Your task to perform on an android device: find photos in the google photos app Image 0: 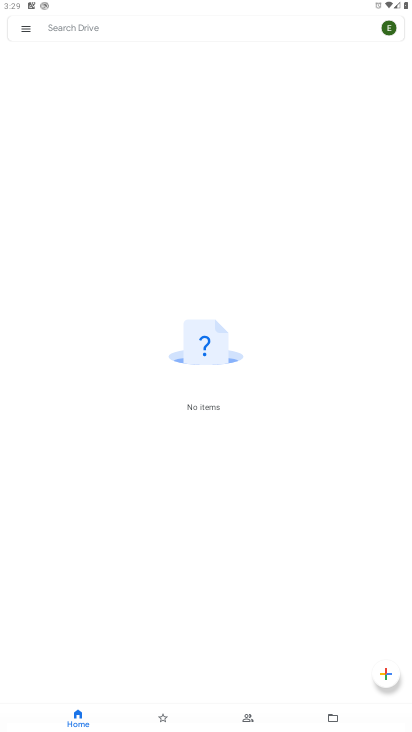
Step 0: press home button
Your task to perform on an android device: find photos in the google photos app Image 1: 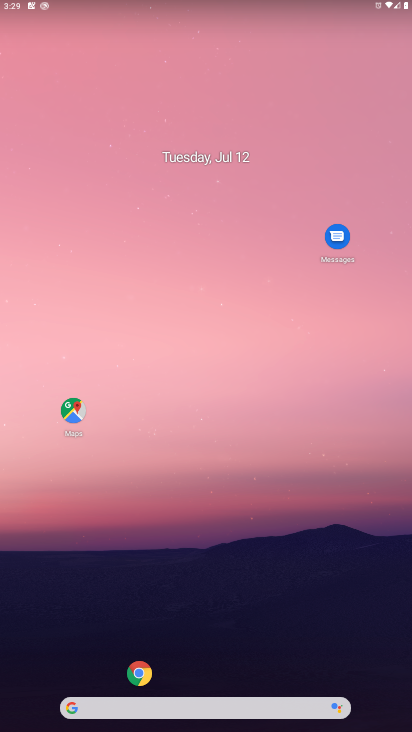
Step 1: drag from (24, 701) to (342, 20)
Your task to perform on an android device: find photos in the google photos app Image 2: 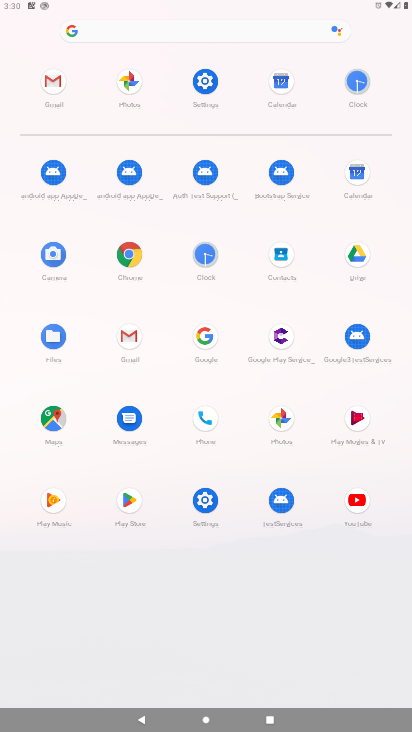
Step 2: click (269, 427)
Your task to perform on an android device: find photos in the google photos app Image 3: 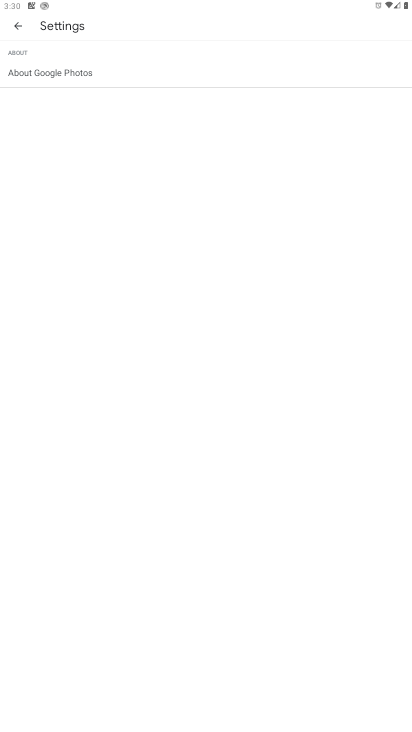
Step 3: click (15, 28)
Your task to perform on an android device: find photos in the google photos app Image 4: 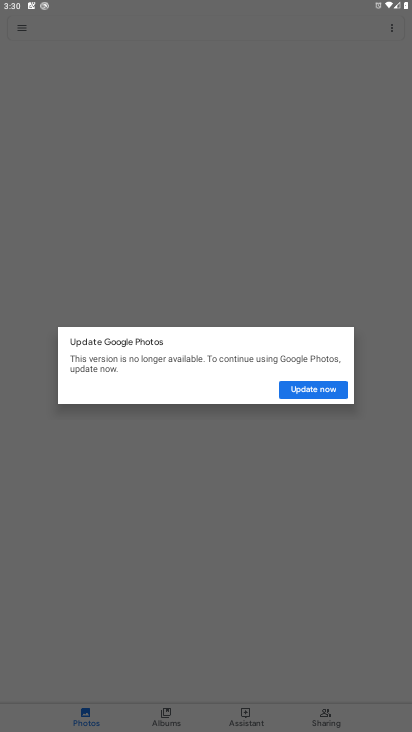
Step 4: click (321, 384)
Your task to perform on an android device: find photos in the google photos app Image 5: 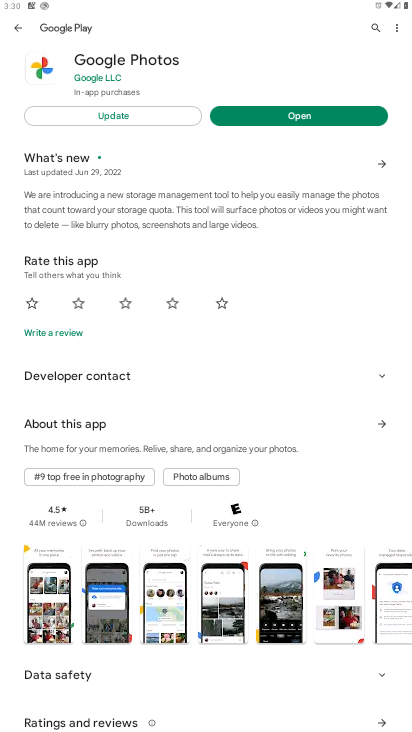
Step 5: click (307, 119)
Your task to perform on an android device: find photos in the google photos app Image 6: 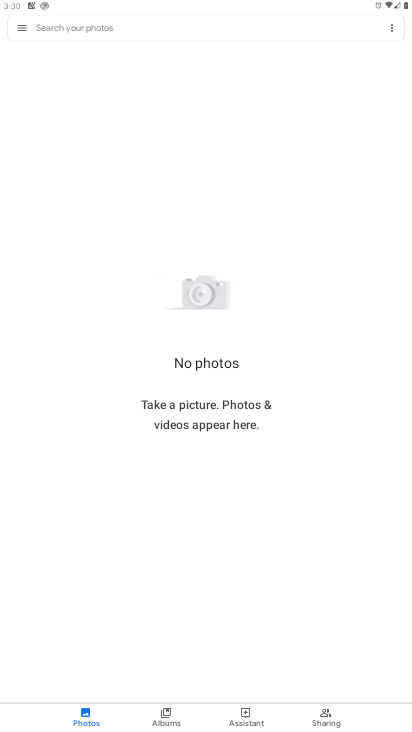
Step 6: task complete